Your task to perform on an android device: Check the weather Image 0: 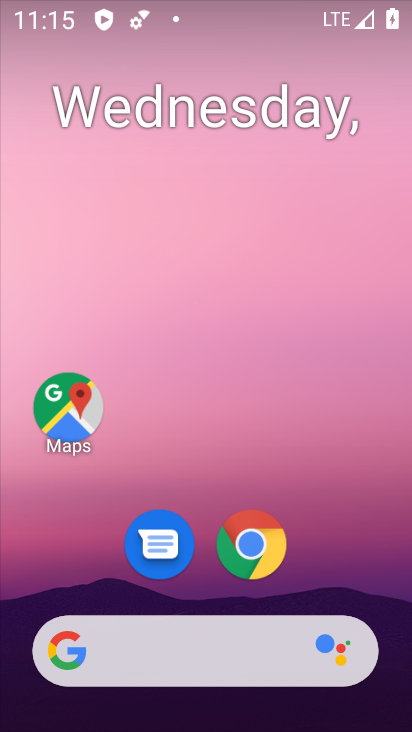
Step 0: click (204, 663)
Your task to perform on an android device: Check the weather Image 1: 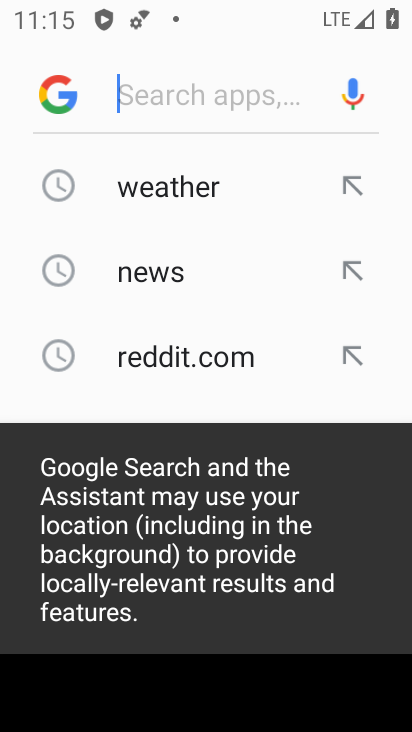
Step 1: type "weather"
Your task to perform on an android device: Check the weather Image 2: 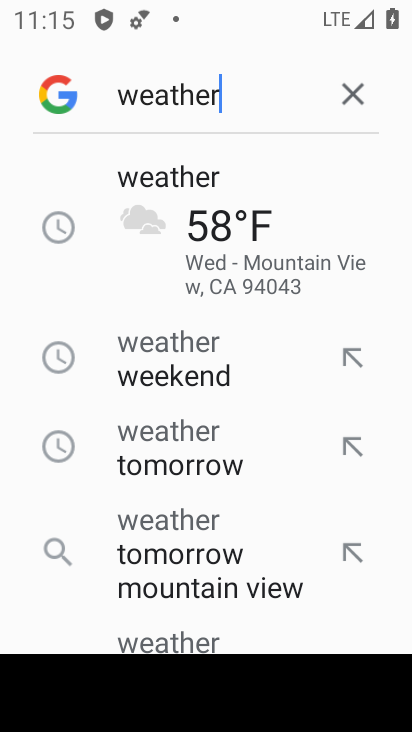
Step 2: click (275, 201)
Your task to perform on an android device: Check the weather Image 3: 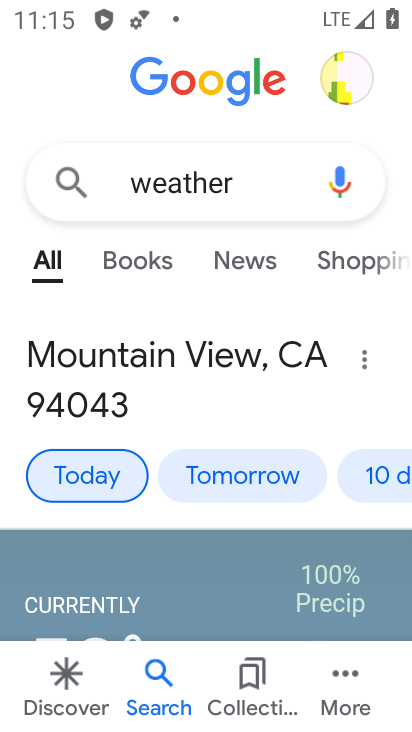
Step 3: task complete